Your task to perform on an android device: change the clock style Image 0: 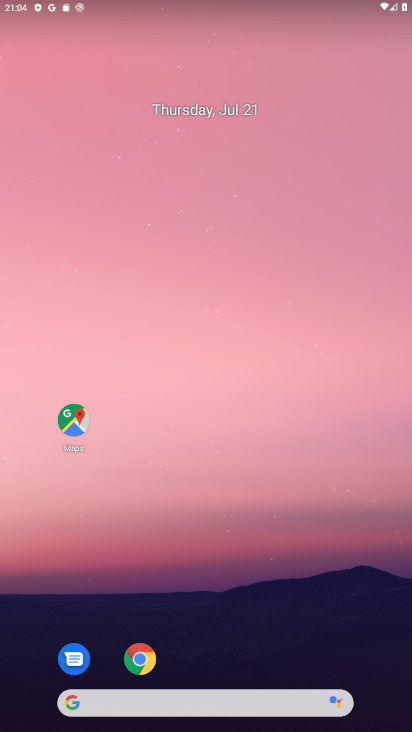
Step 0: drag from (256, 644) to (312, 213)
Your task to perform on an android device: change the clock style Image 1: 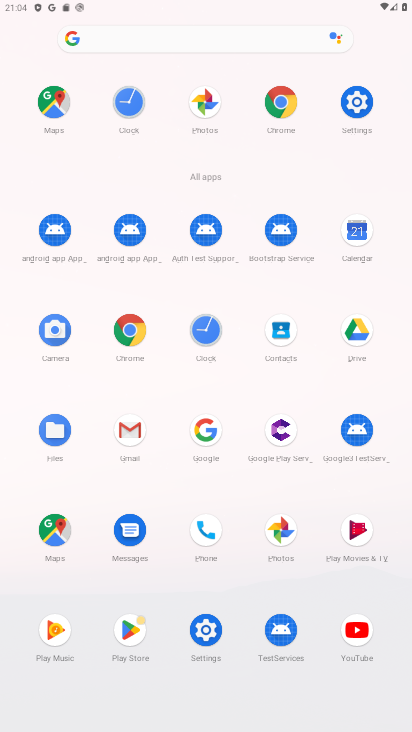
Step 1: click (216, 343)
Your task to perform on an android device: change the clock style Image 2: 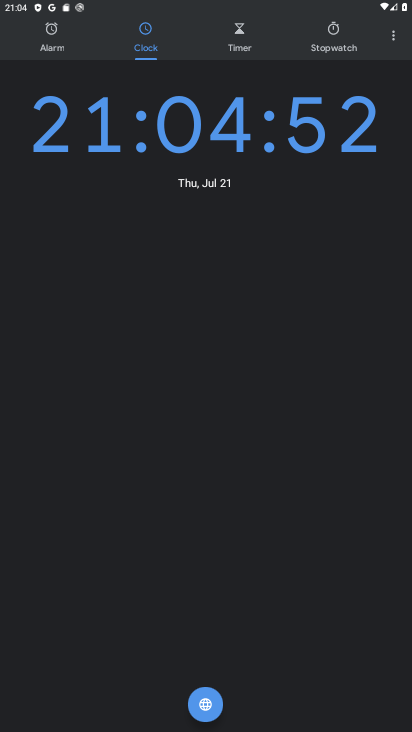
Step 2: click (380, 37)
Your task to perform on an android device: change the clock style Image 3: 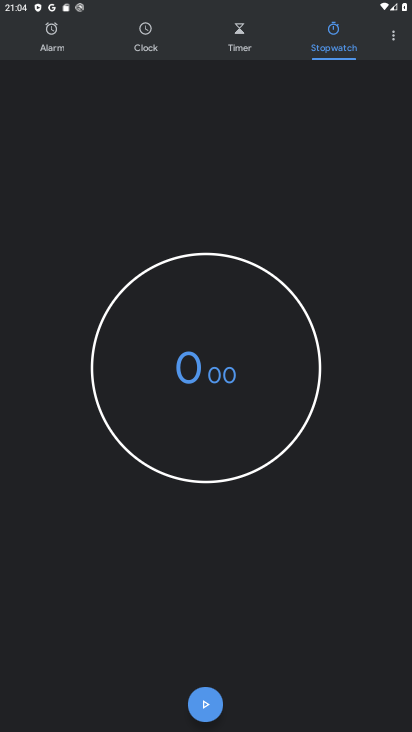
Step 3: click (395, 42)
Your task to perform on an android device: change the clock style Image 4: 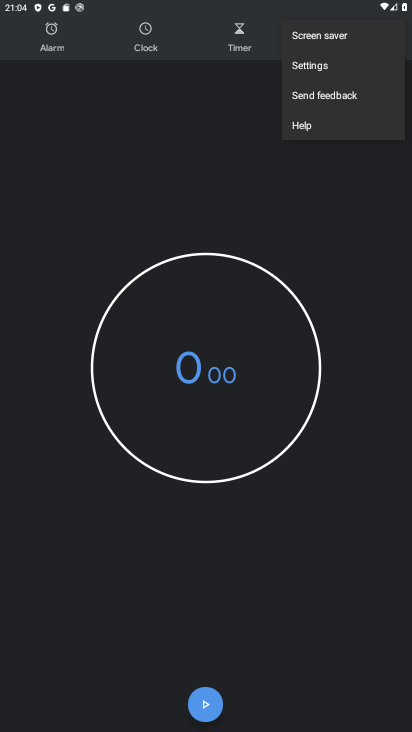
Step 4: click (326, 66)
Your task to perform on an android device: change the clock style Image 5: 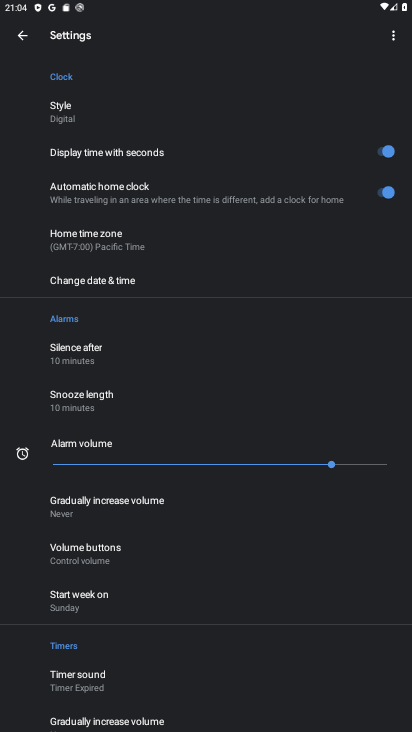
Step 5: click (71, 113)
Your task to perform on an android device: change the clock style Image 6: 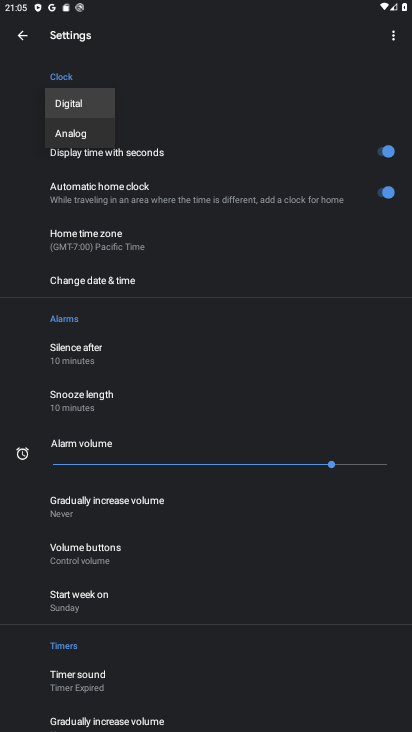
Step 6: click (76, 131)
Your task to perform on an android device: change the clock style Image 7: 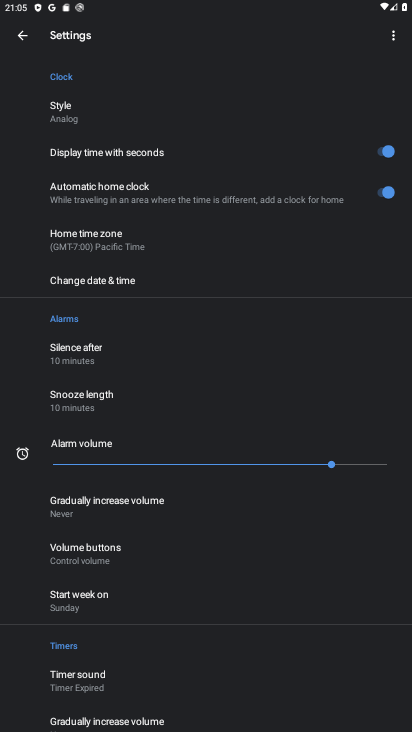
Step 7: task complete